Your task to perform on an android device: Go to wifi settings Image 0: 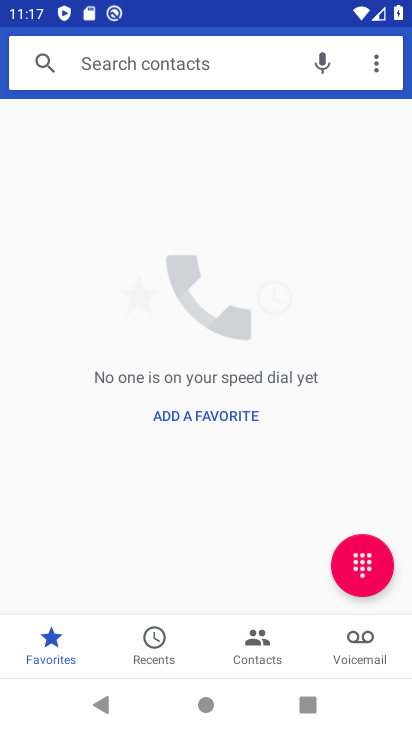
Step 0: press home button
Your task to perform on an android device: Go to wifi settings Image 1: 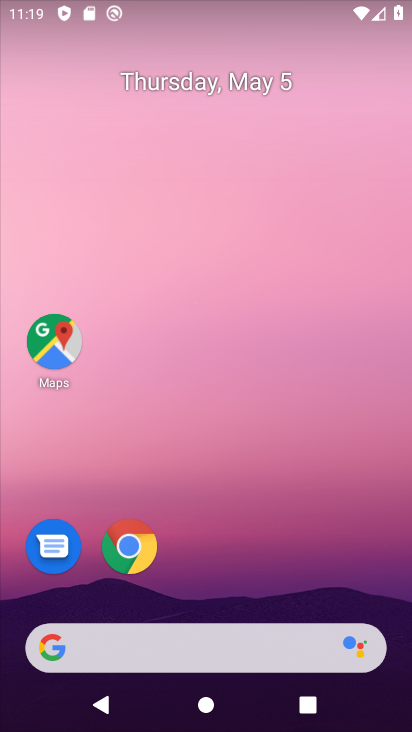
Step 1: drag from (71, 474) to (153, 268)
Your task to perform on an android device: Go to wifi settings Image 2: 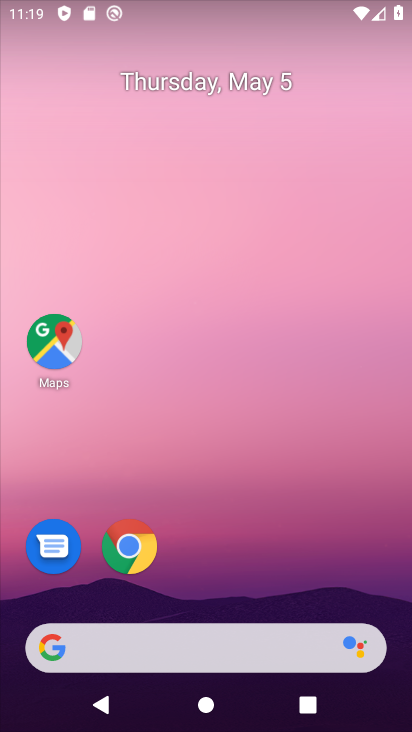
Step 2: drag from (12, 543) to (212, 132)
Your task to perform on an android device: Go to wifi settings Image 3: 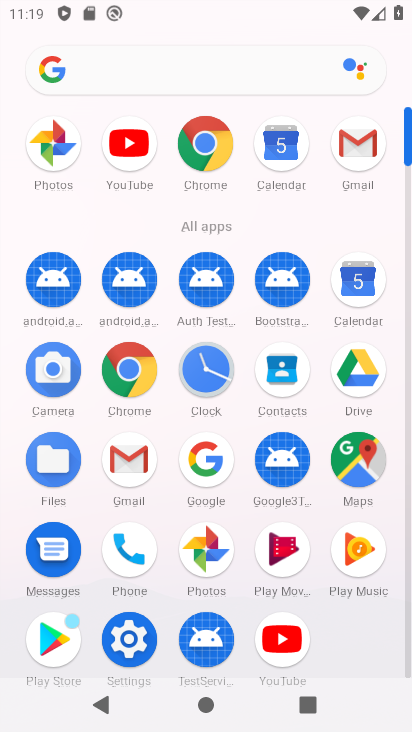
Step 3: click (130, 653)
Your task to perform on an android device: Go to wifi settings Image 4: 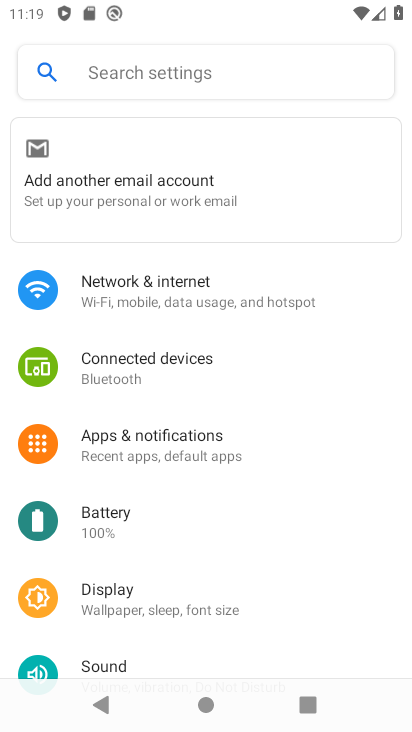
Step 4: click (150, 278)
Your task to perform on an android device: Go to wifi settings Image 5: 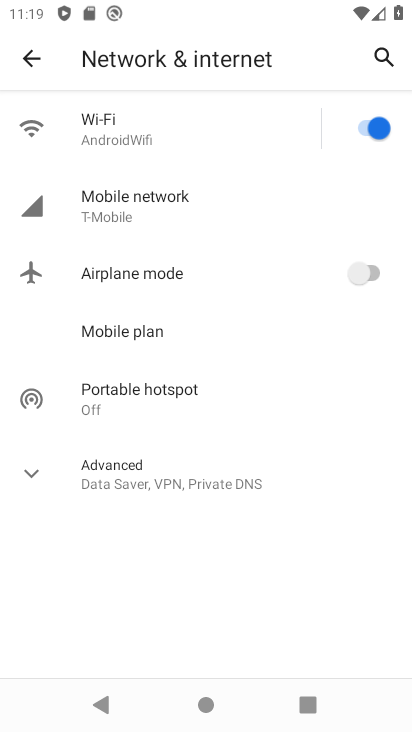
Step 5: click (160, 142)
Your task to perform on an android device: Go to wifi settings Image 6: 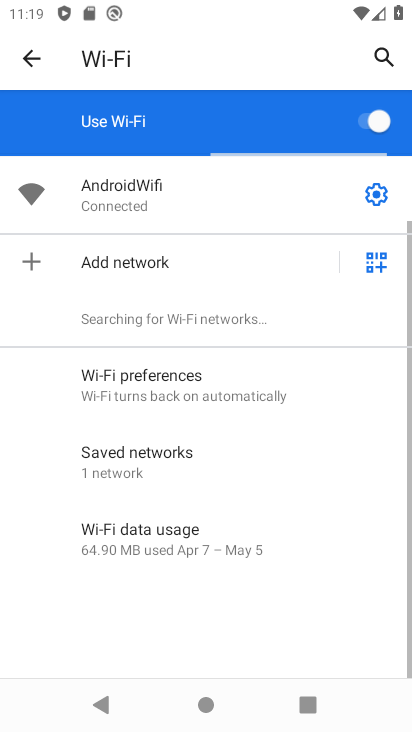
Step 6: click (382, 210)
Your task to perform on an android device: Go to wifi settings Image 7: 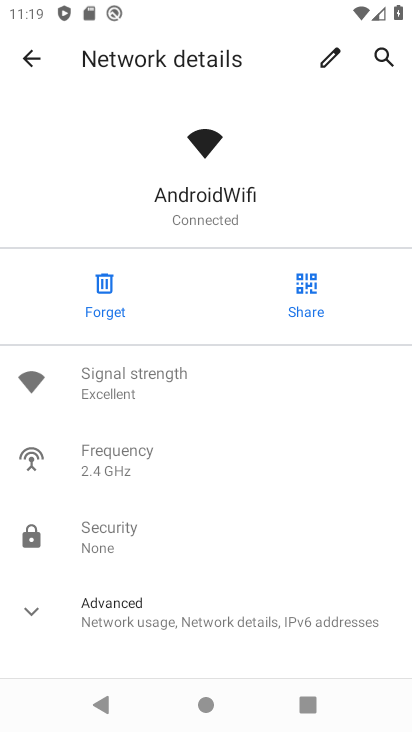
Step 7: task complete